Your task to perform on an android device: install app "Mercado Libre" Image 0: 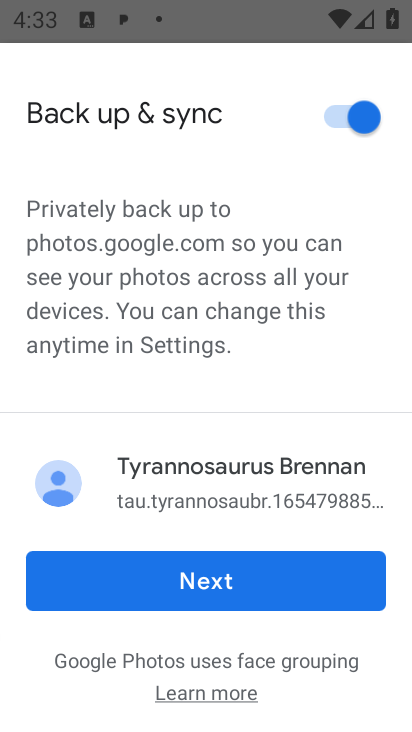
Step 0: press home button
Your task to perform on an android device: install app "Mercado Libre" Image 1: 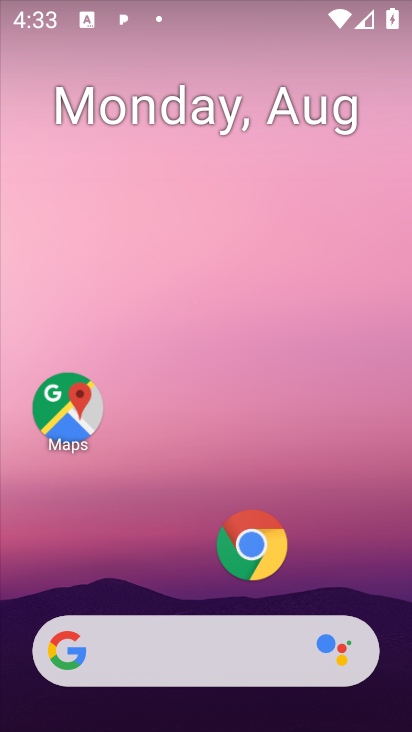
Step 1: drag from (105, 529) to (224, 1)
Your task to perform on an android device: install app "Mercado Libre" Image 2: 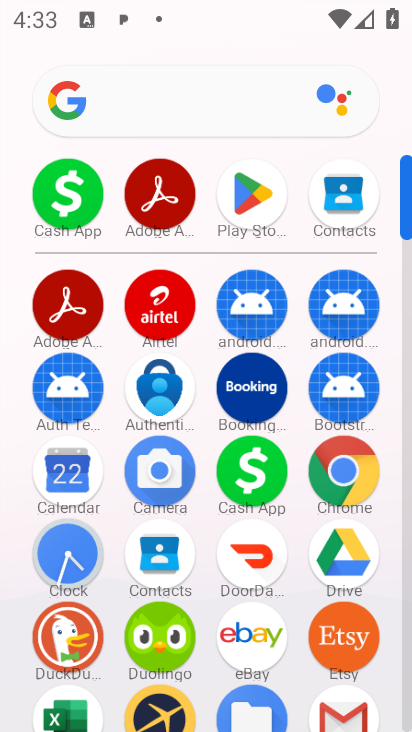
Step 2: click (222, 224)
Your task to perform on an android device: install app "Mercado Libre" Image 3: 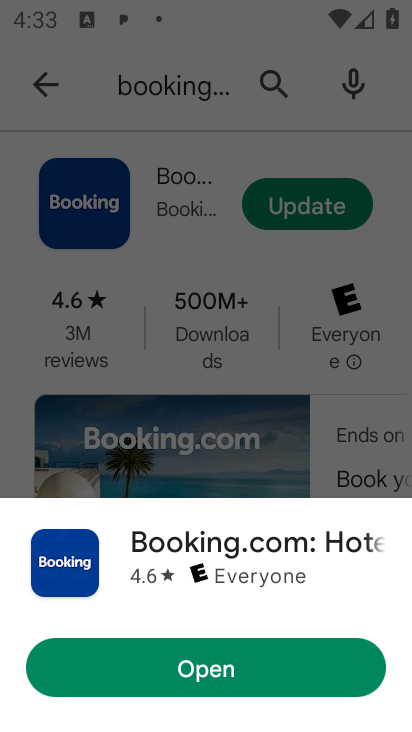
Step 3: click (265, 90)
Your task to perform on an android device: install app "Mercado Libre" Image 4: 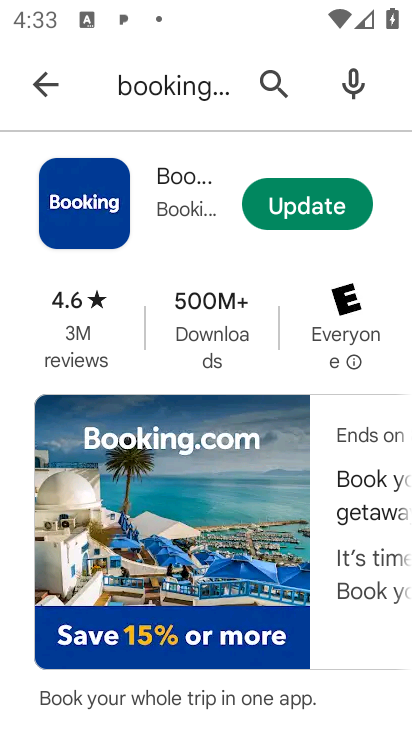
Step 4: click (265, 90)
Your task to perform on an android device: install app "Mercado Libre" Image 5: 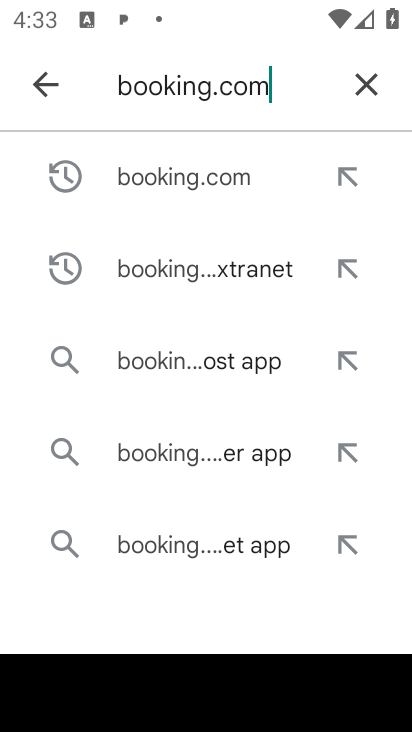
Step 5: click (371, 76)
Your task to perform on an android device: install app "Mercado Libre" Image 6: 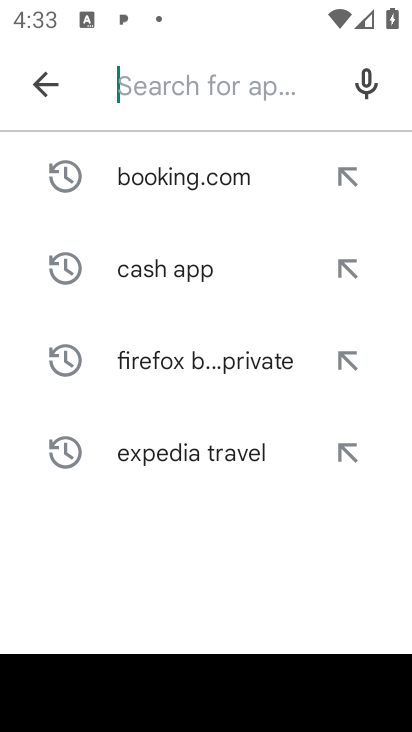
Step 6: type "mercado libre"
Your task to perform on an android device: install app "Mercado Libre" Image 7: 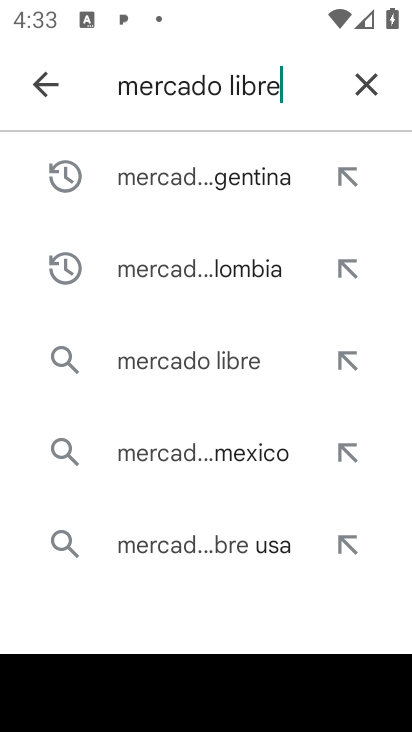
Step 7: click (168, 370)
Your task to perform on an android device: install app "Mercado Libre" Image 8: 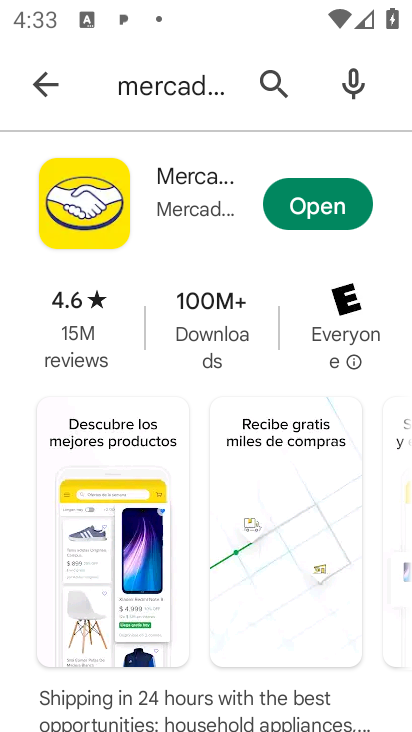
Step 8: click (320, 194)
Your task to perform on an android device: install app "Mercado Libre" Image 9: 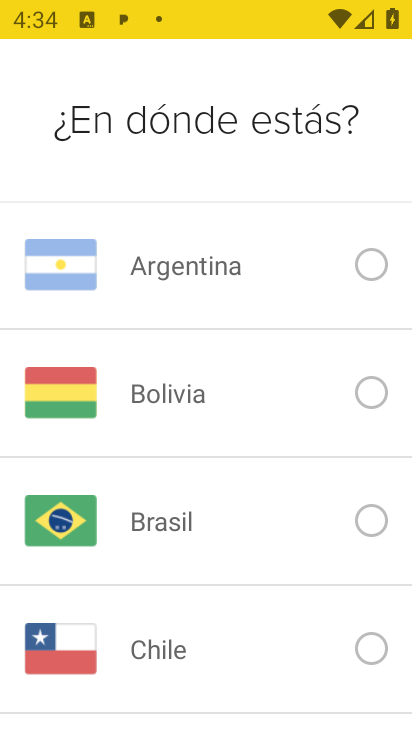
Step 9: task complete